Your task to perform on an android device: Open wifi settings Image 0: 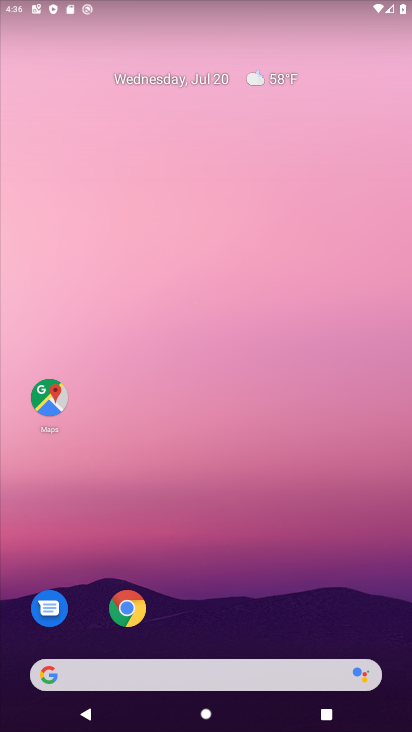
Step 0: click (253, 604)
Your task to perform on an android device: Open wifi settings Image 1: 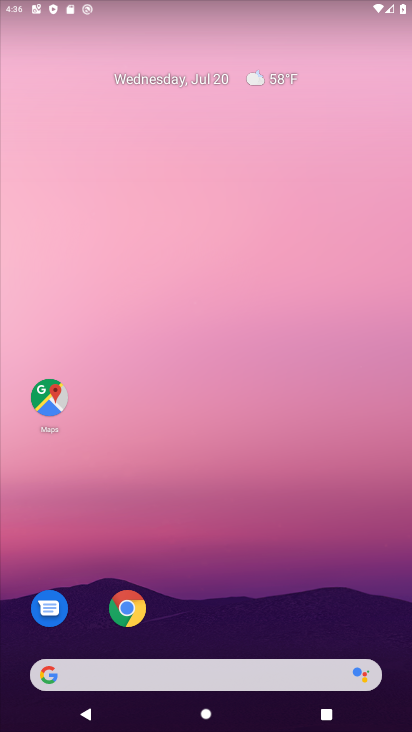
Step 1: drag from (229, 576) to (110, 134)
Your task to perform on an android device: Open wifi settings Image 2: 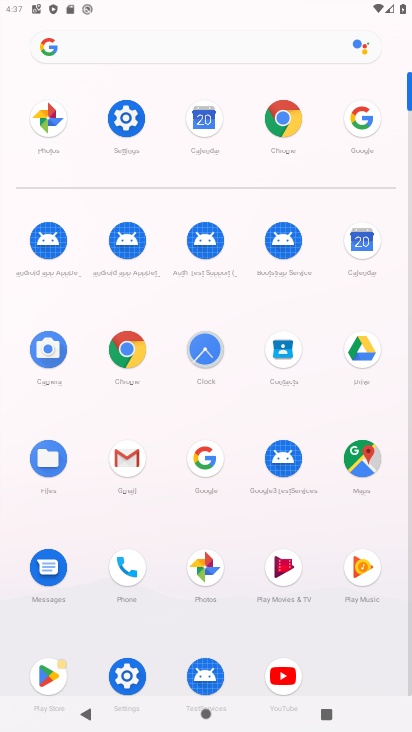
Step 2: click (113, 127)
Your task to perform on an android device: Open wifi settings Image 3: 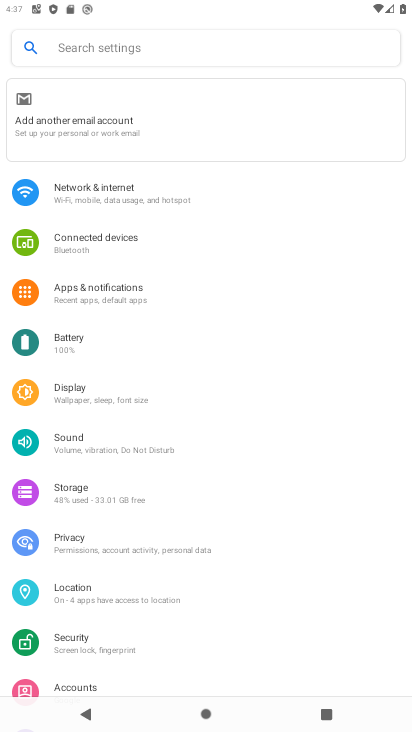
Step 3: click (85, 195)
Your task to perform on an android device: Open wifi settings Image 4: 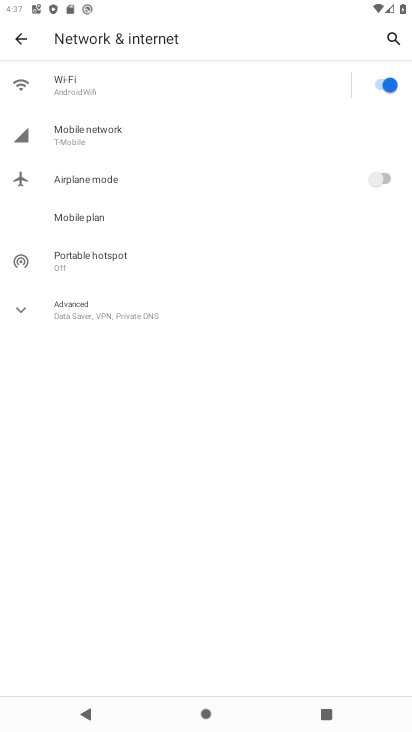
Step 4: click (99, 92)
Your task to perform on an android device: Open wifi settings Image 5: 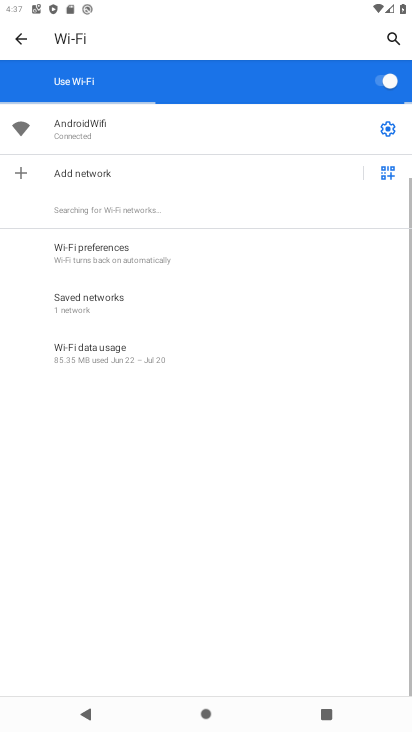
Step 5: task complete